Your task to perform on an android device: clear all cookies in the chrome app Image 0: 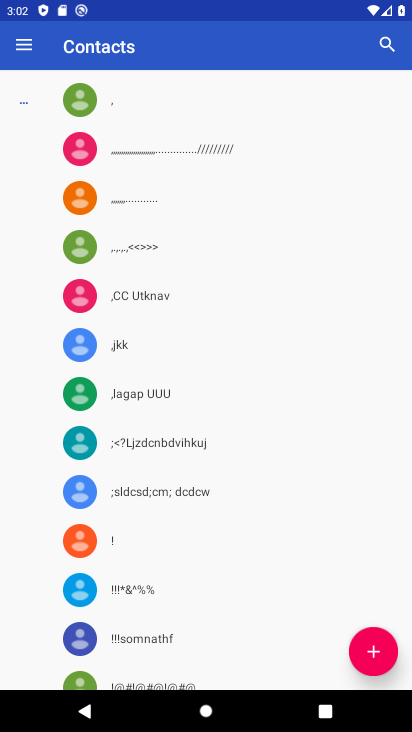
Step 0: press home button
Your task to perform on an android device: clear all cookies in the chrome app Image 1: 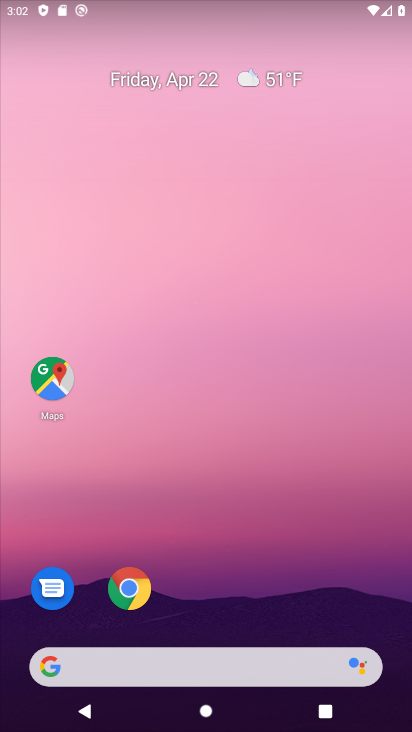
Step 1: drag from (351, 598) to (371, 114)
Your task to perform on an android device: clear all cookies in the chrome app Image 2: 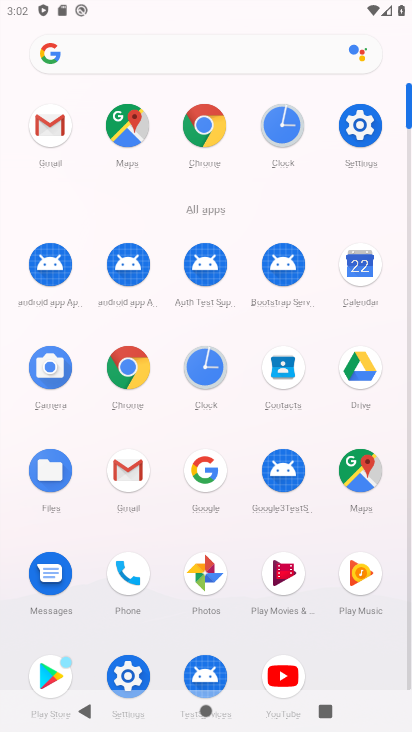
Step 2: click (209, 132)
Your task to perform on an android device: clear all cookies in the chrome app Image 3: 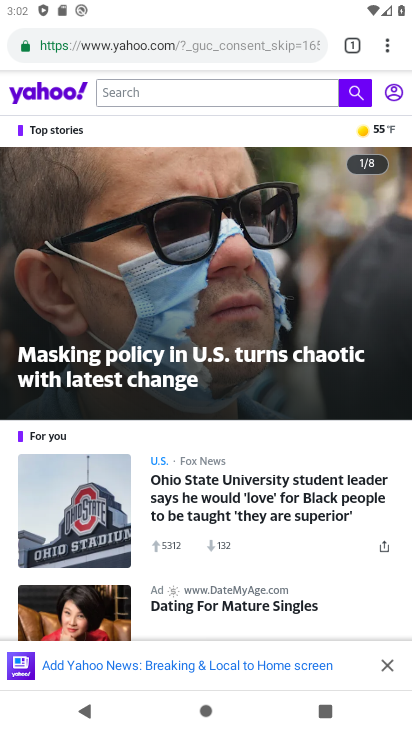
Step 3: click (390, 48)
Your task to perform on an android device: clear all cookies in the chrome app Image 4: 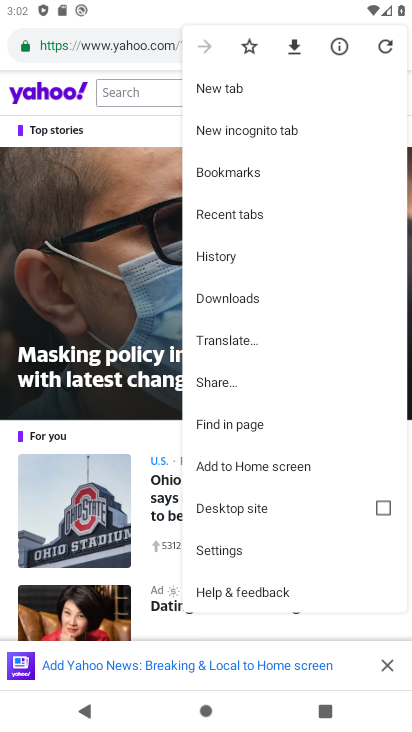
Step 4: click (244, 550)
Your task to perform on an android device: clear all cookies in the chrome app Image 5: 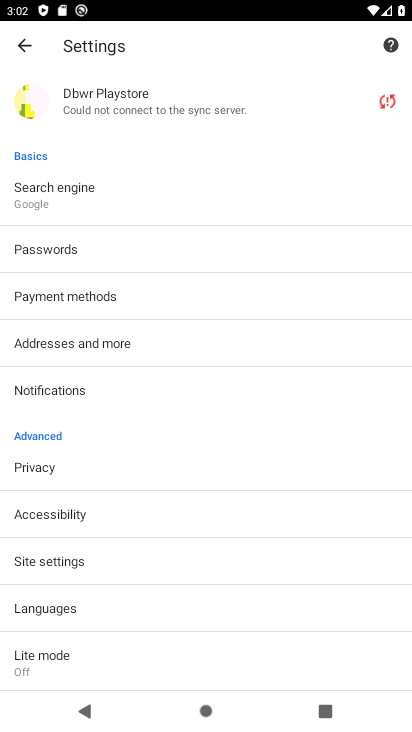
Step 5: drag from (310, 578) to (313, 410)
Your task to perform on an android device: clear all cookies in the chrome app Image 6: 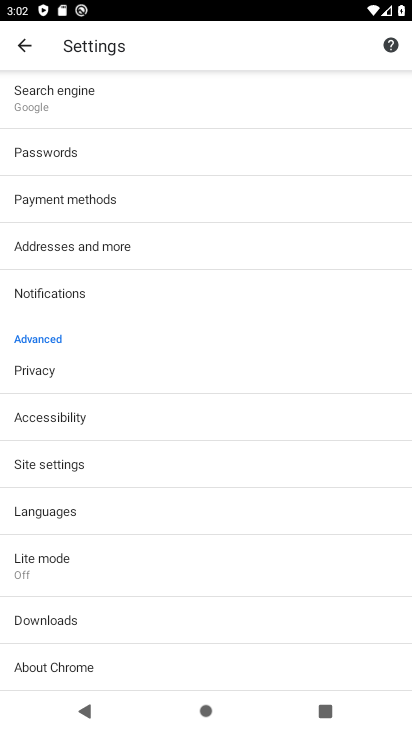
Step 6: drag from (282, 612) to (297, 422)
Your task to perform on an android device: clear all cookies in the chrome app Image 7: 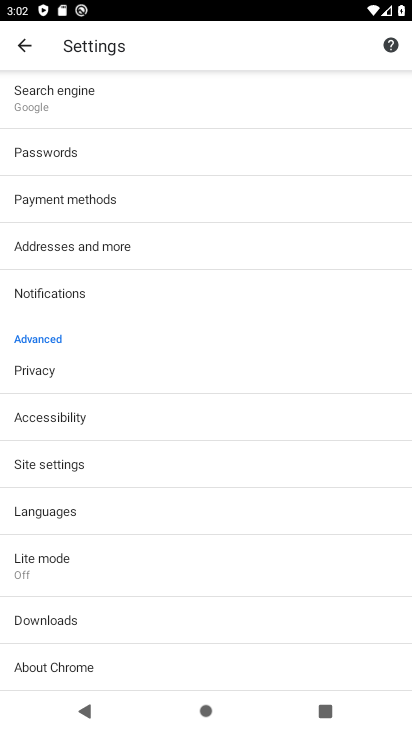
Step 7: drag from (307, 332) to (283, 468)
Your task to perform on an android device: clear all cookies in the chrome app Image 8: 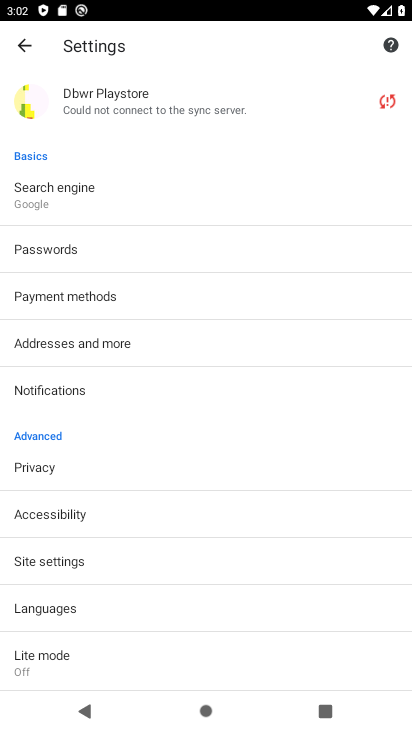
Step 8: click (262, 573)
Your task to perform on an android device: clear all cookies in the chrome app Image 9: 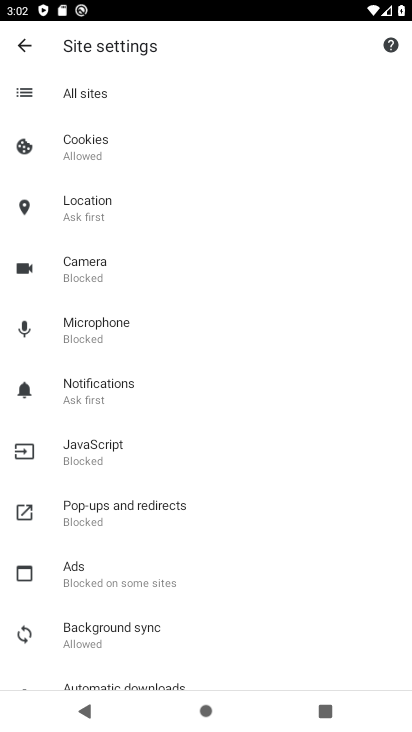
Step 9: drag from (312, 274) to (286, 449)
Your task to perform on an android device: clear all cookies in the chrome app Image 10: 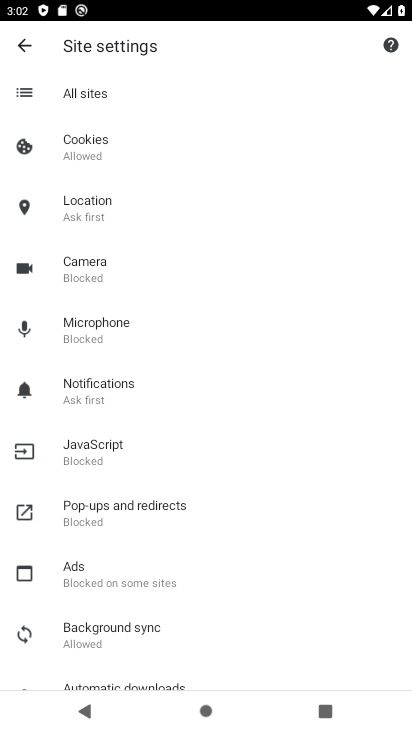
Step 10: click (116, 137)
Your task to perform on an android device: clear all cookies in the chrome app Image 11: 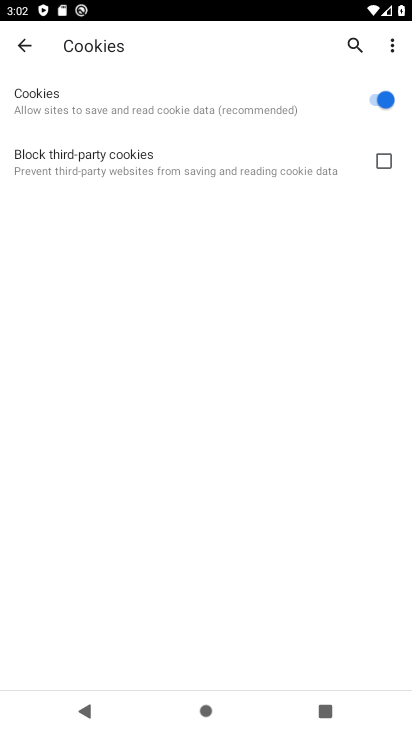
Step 11: click (380, 103)
Your task to perform on an android device: clear all cookies in the chrome app Image 12: 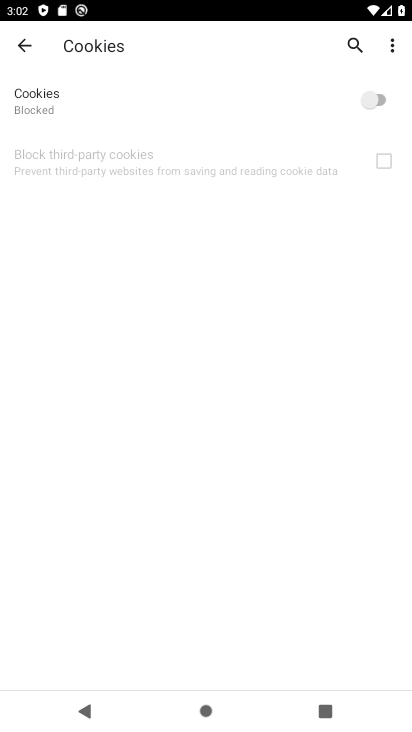
Step 12: task complete